Your task to perform on an android device: visit the assistant section in the google photos Image 0: 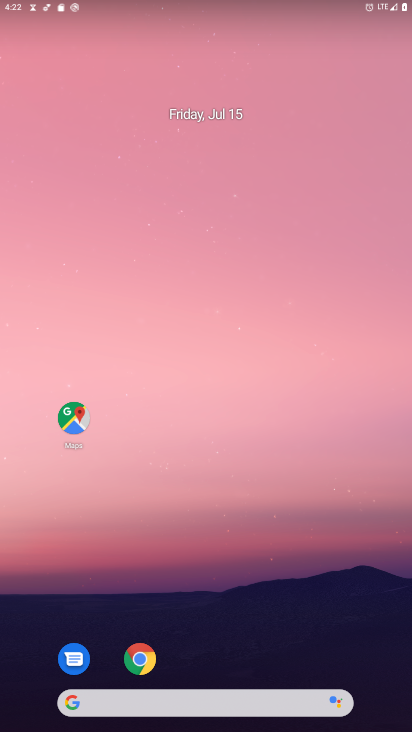
Step 0: click (306, 34)
Your task to perform on an android device: visit the assistant section in the google photos Image 1: 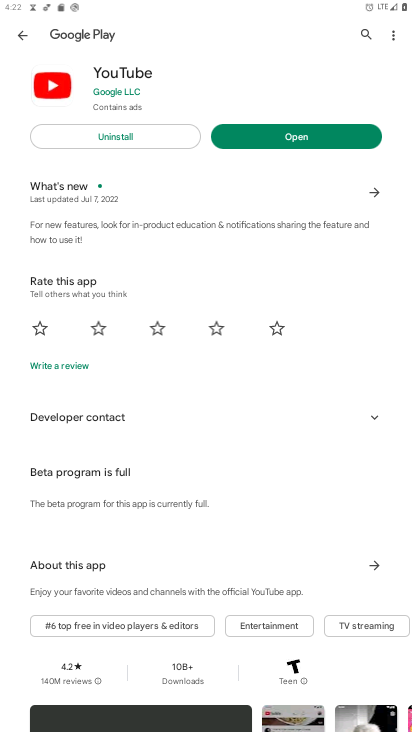
Step 1: press home button
Your task to perform on an android device: visit the assistant section in the google photos Image 2: 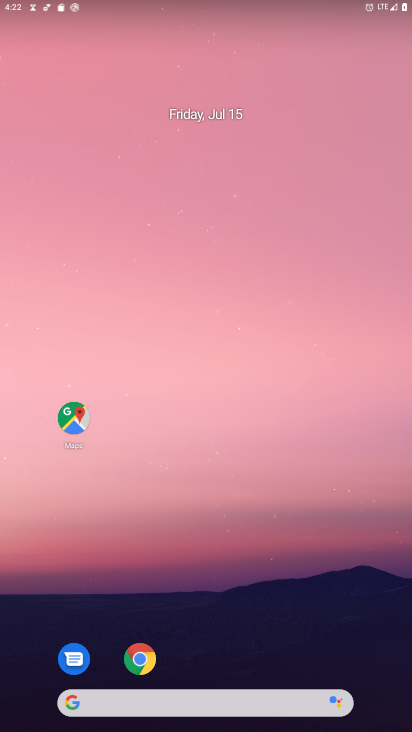
Step 2: drag from (244, 691) to (259, 0)
Your task to perform on an android device: visit the assistant section in the google photos Image 3: 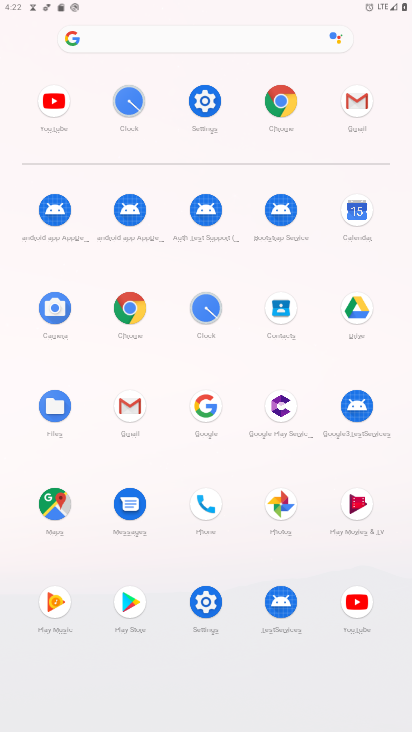
Step 3: click (282, 499)
Your task to perform on an android device: visit the assistant section in the google photos Image 4: 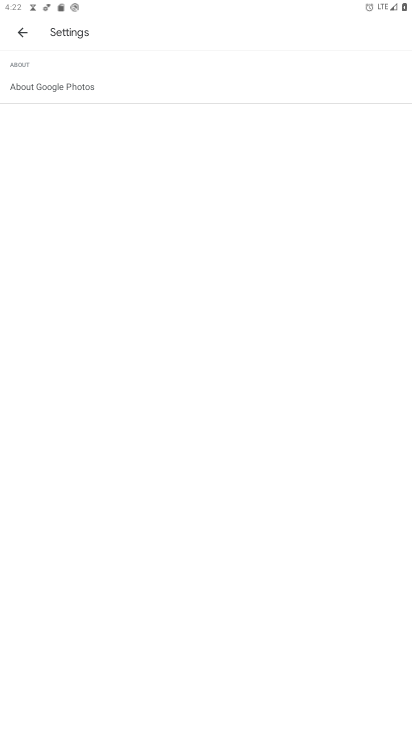
Step 4: press back button
Your task to perform on an android device: visit the assistant section in the google photos Image 5: 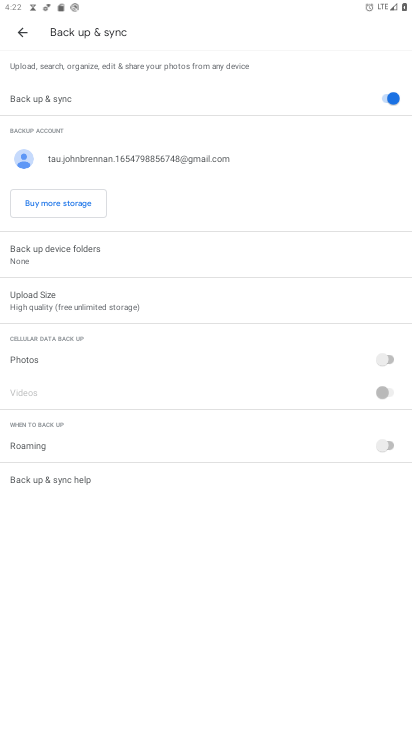
Step 5: press home button
Your task to perform on an android device: visit the assistant section in the google photos Image 6: 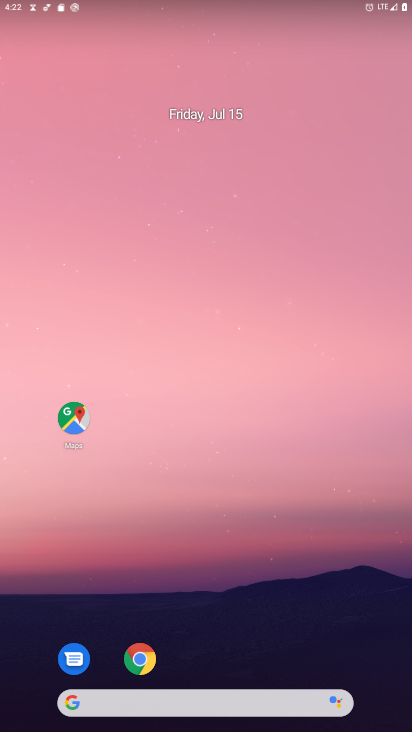
Step 6: drag from (211, 693) to (260, 19)
Your task to perform on an android device: visit the assistant section in the google photos Image 7: 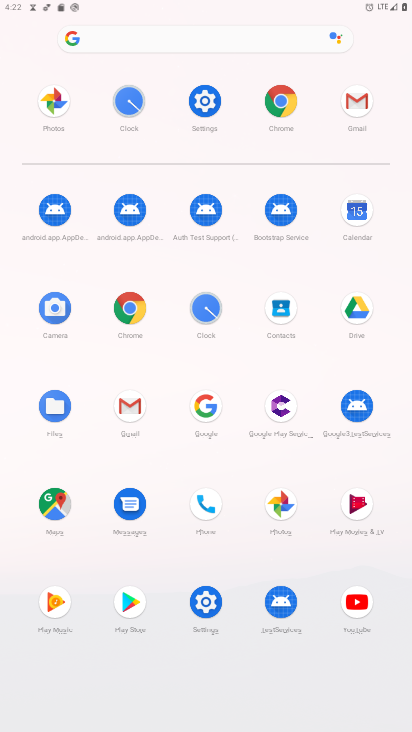
Step 7: click (281, 499)
Your task to perform on an android device: visit the assistant section in the google photos Image 8: 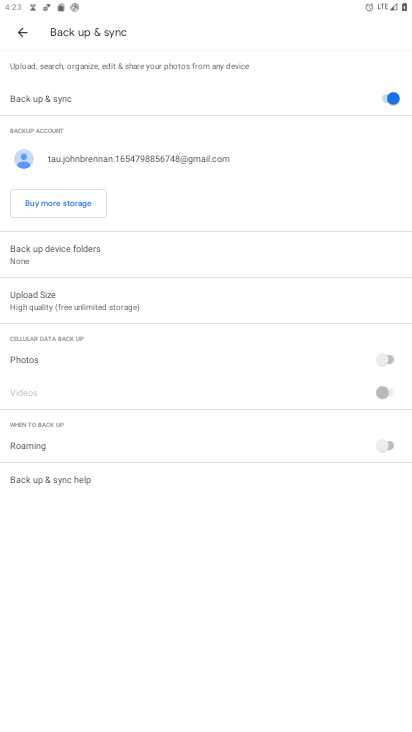
Step 8: task complete